Your task to perform on an android device: set an alarm Image 0: 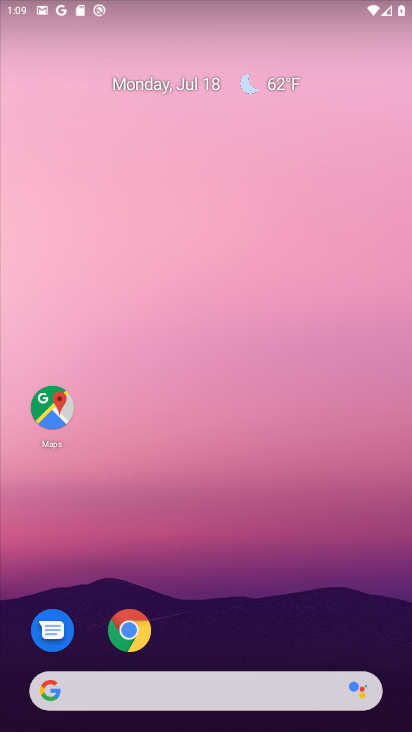
Step 0: drag from (211, 656) to (221, 236)
Your task to perform on an android device: set an alarm Image 1: 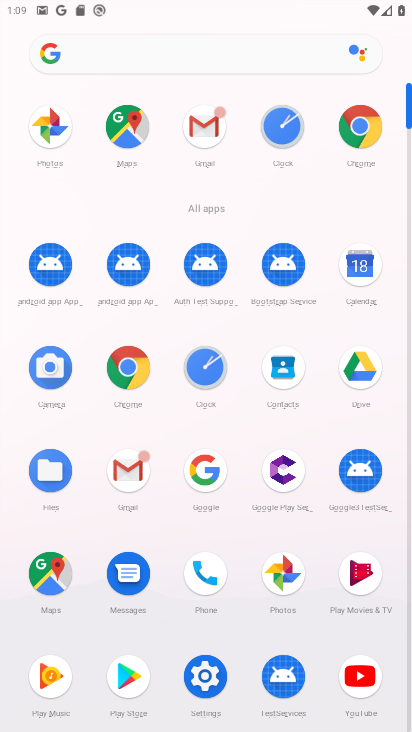
Step 1: click (194, 379)
Your task to perform on an android device: set an alarm Image 2: 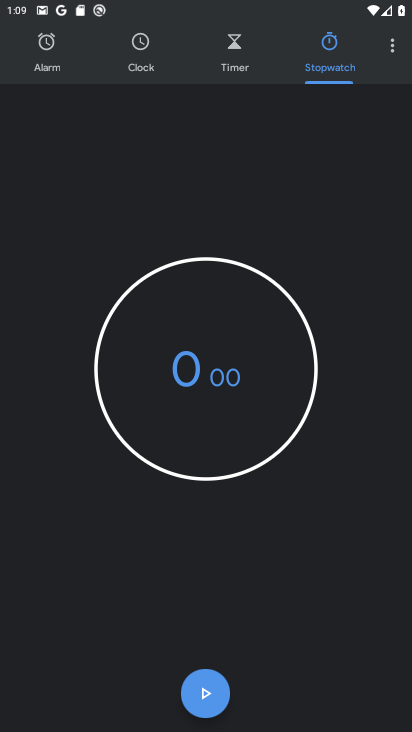
Step 2: click (52, 54)
Your task to perform on an android device: set an alarm Image 3: 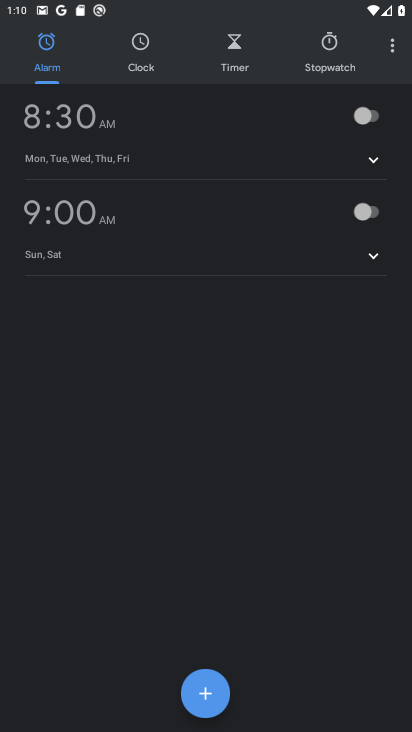
Step 3: click (199, 699)
Your task to perform on an android device: set an alarm Image 4: 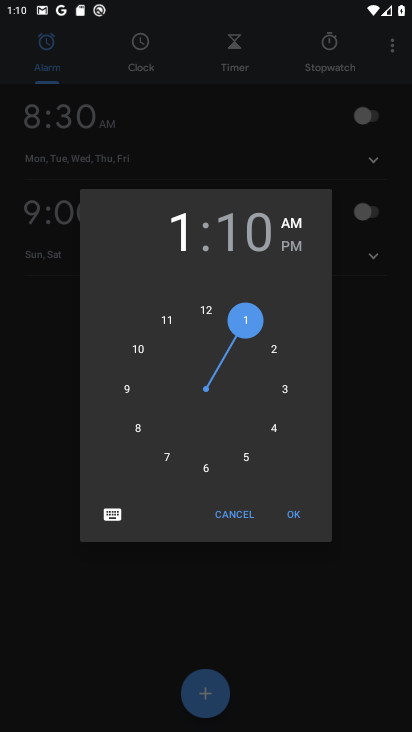
Step 4: click (207, 468)
Your task to perform on an android device: set an alarm Image 5: 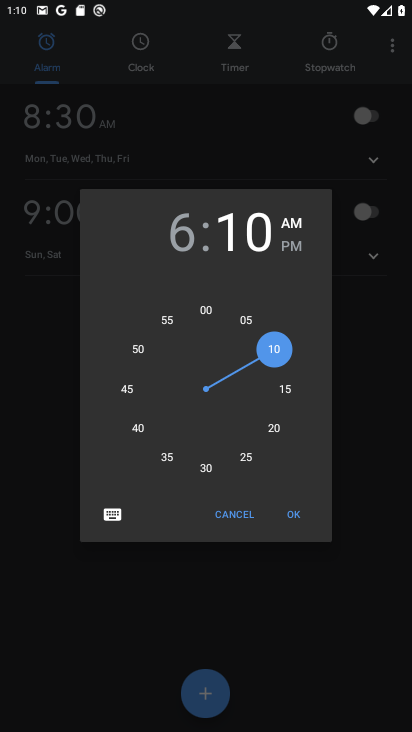
Step 5: click (208, 318)
Your task to perform on an android device: set an alarm Image 6: 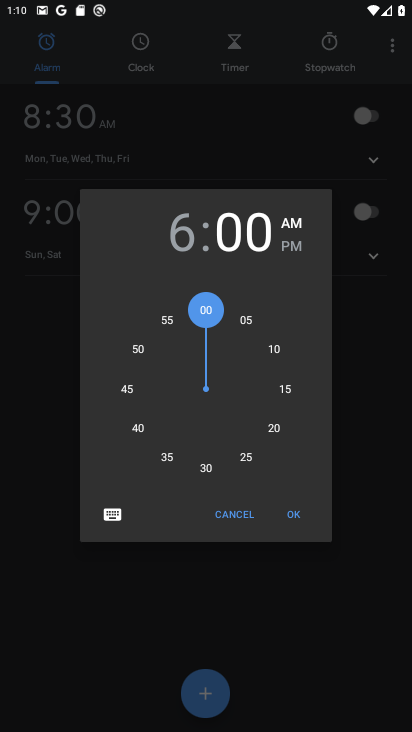
Step 6: click (283, 245)
Your task to perform on an android device: set an alarm Image 7: 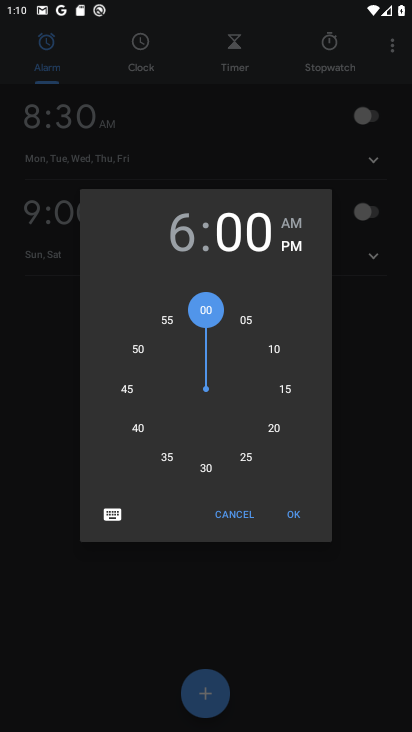
Step 7: click (290, 510)
Your task to perform on an android device: set an alarm Image 8: 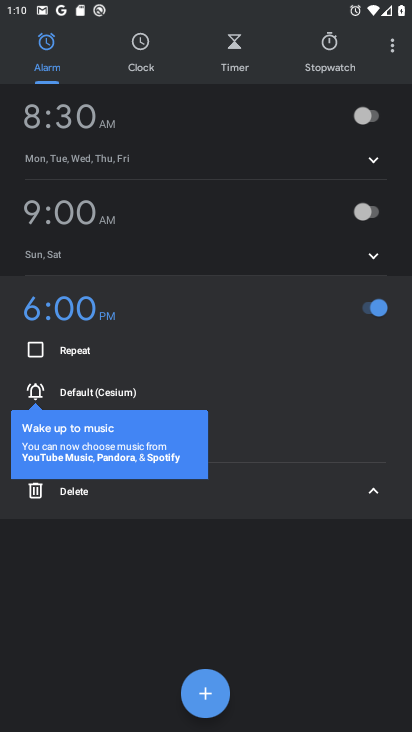
Step 8: task complete